Your task to perform on an android device: turn off sleep mode Image 0: 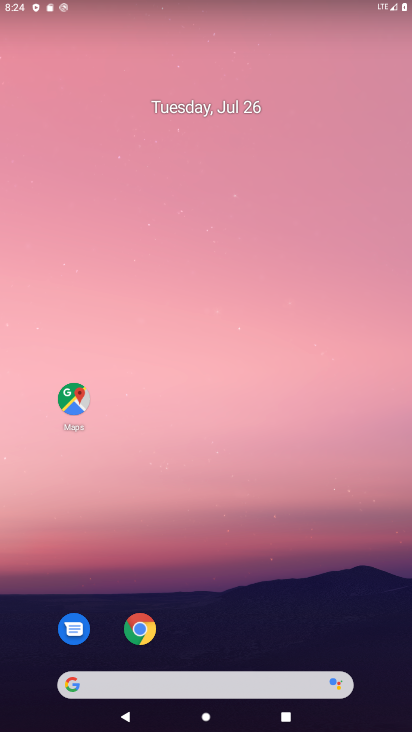
Step 0: drag from (220, 655) to (202, 67)
Your task to perform on an android device: turn off sleep mode Image 1: 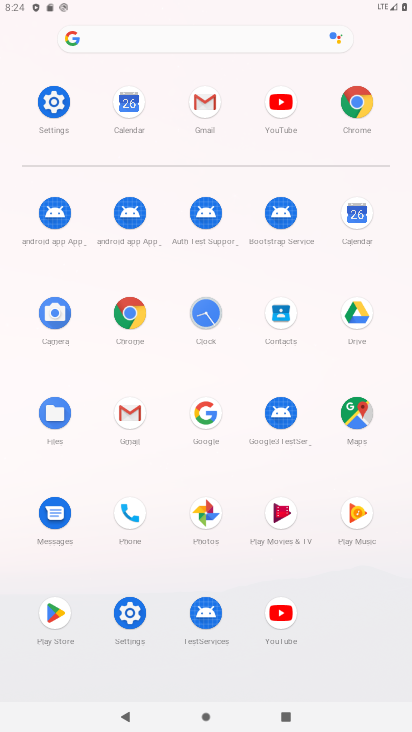
Step 1: click (60, 110)
Your task to perform on an android device: turn off sleep mode Image 2: 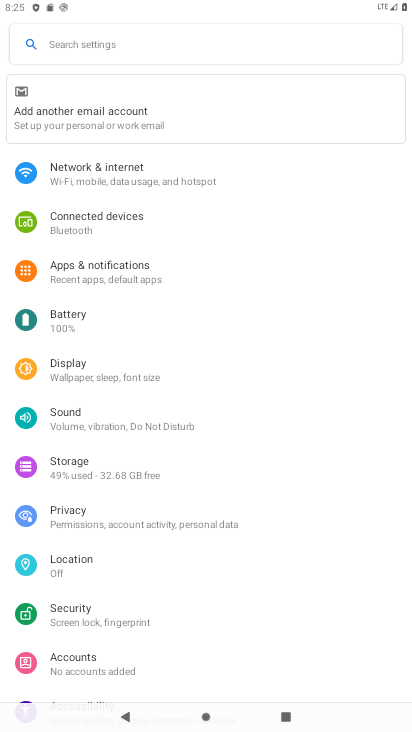
Step 2: task complete